Your task to perform on an android device: see tabs open on other devices in the chrome app Image 0: 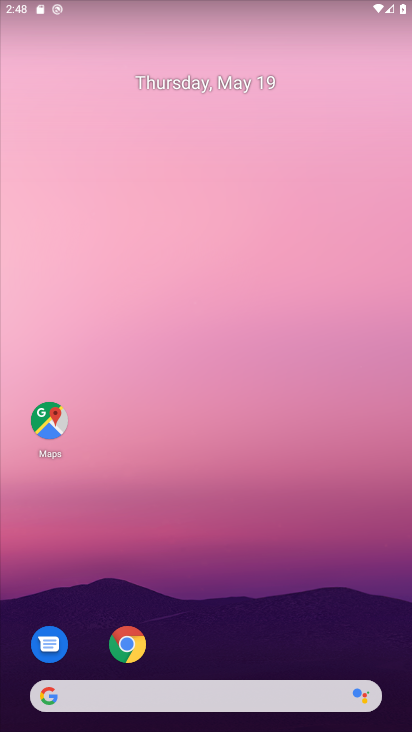
Step 0: drag from (308, 604) to (302, 230)
Your task to perform on an android device: see tabs open on other devices in the chrome app Image 1: 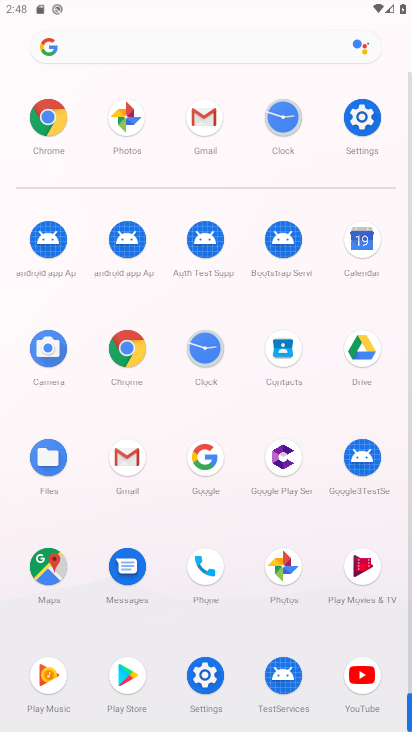
Step 1: click (117, 335)
Your task to perform on an android device: see tabs open on other devices in the chrome app Image 2: 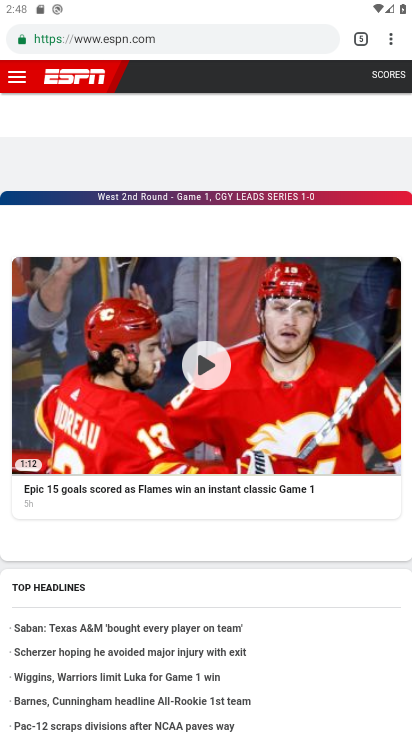
Step 2: click (395, 48)
Your task to perform on an android device: see tabs open on other devices in the chrome app Image 3: 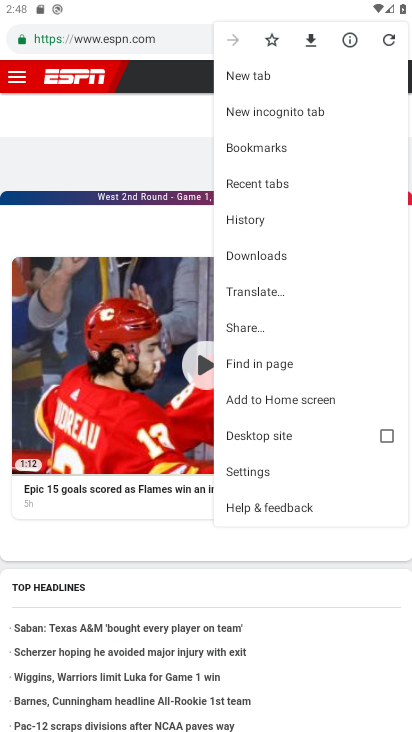
Step 3: click (279, 83)
Your task to perform on an android device: see tabs open on other devices in the chrome app Image 4: 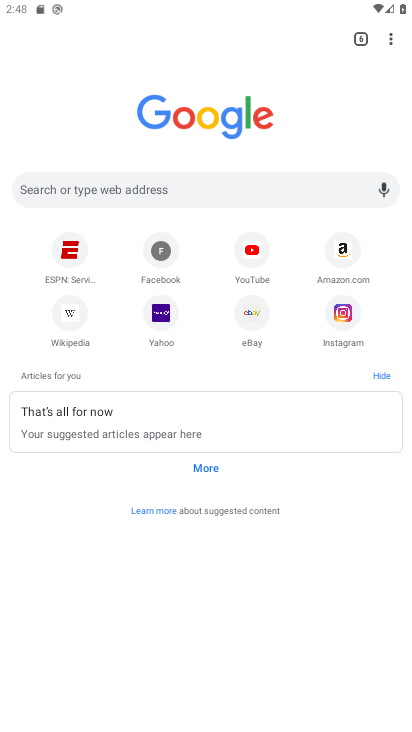
Step 4: task complete